Your task to perform on an android device: change the upload size in google photos Image 0: 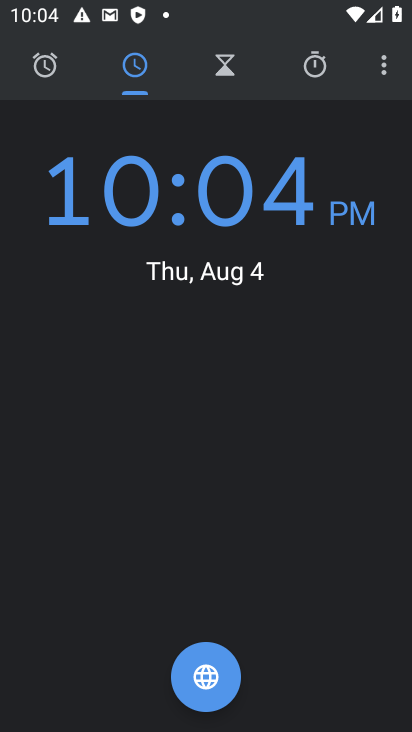
Step 0: press home button
Your task to perform on an android device: change the upload size in google photos Image 1: 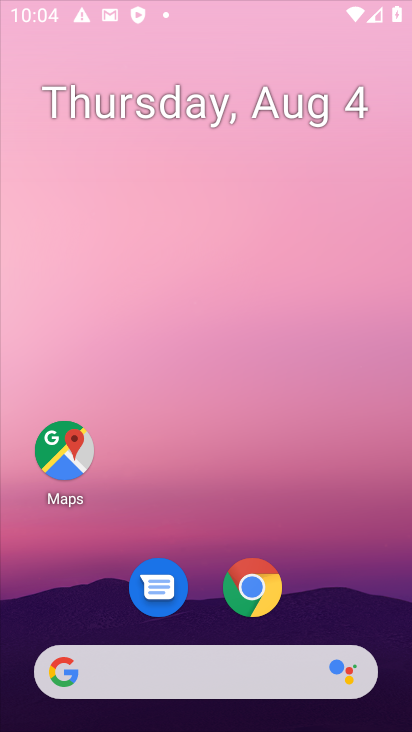
Step 1: drag from (204, 679) to (294, 122)
Your task to perform on an android device: change the upload size in google photos Image 2: 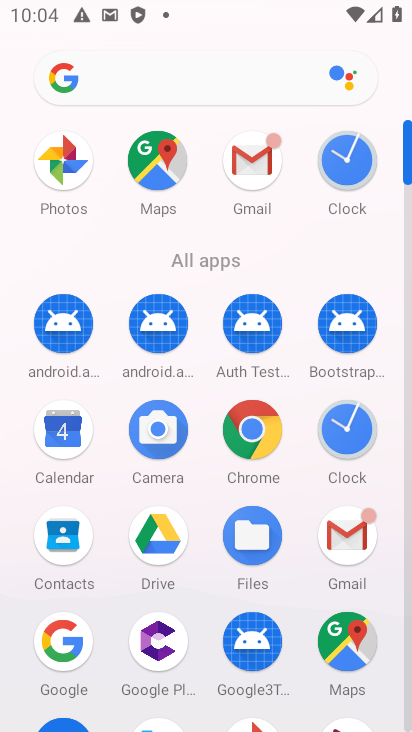
Step 2: drag from (85, 615) to (87, 145)
Your task to perform on an android device: change the upload size in google photos Image 3: 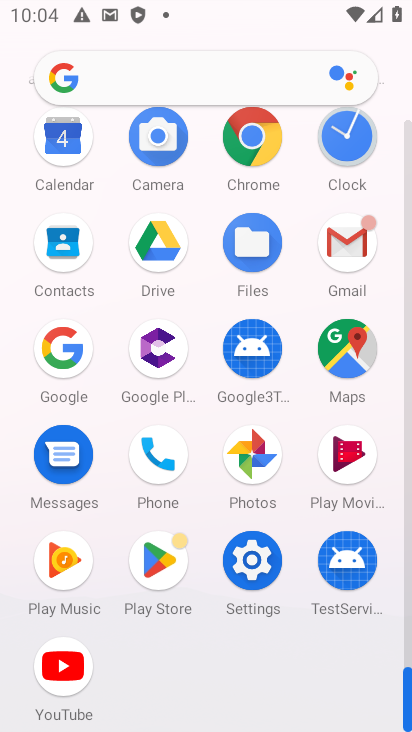
Step 3: click (263, 458)
Your task to perform on an android device: change the upload size in google photos Image 4: 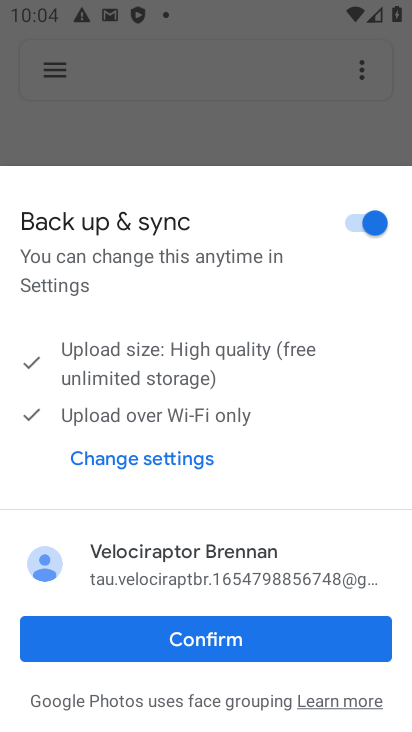
Step 4: click (54, 73)
Your task to perform on an android device: change the upload size in google photos Image 5: 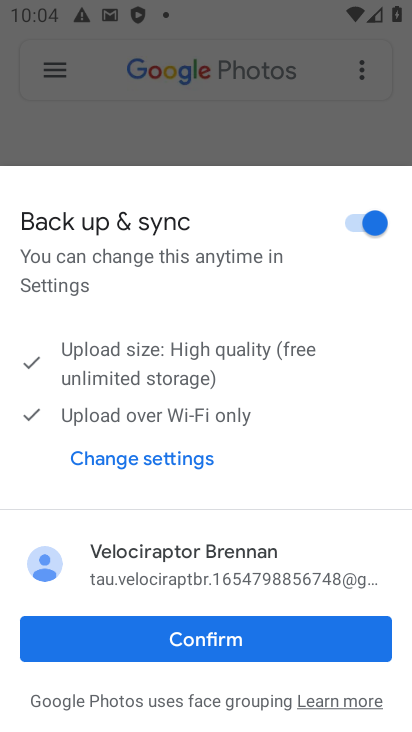
Step 5: click (172, 627)
Your task to perform on an android device: change the upload size in google photos Image 6: 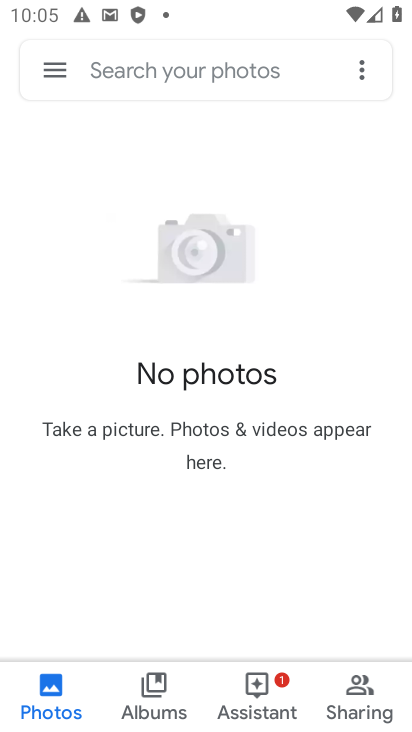
Step 6: click (53, 63)
Your task to perform on an android device: change the upload size in google photos Image 7: 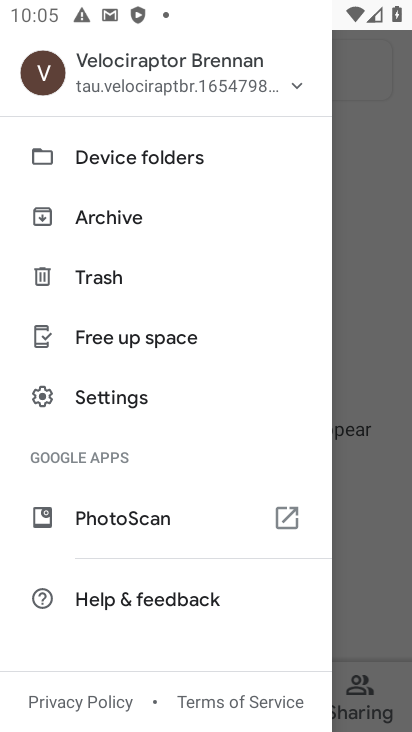
Step 7: click (93, 400)
Your task to perform on an android device: change the upload size in google photos Image 8: 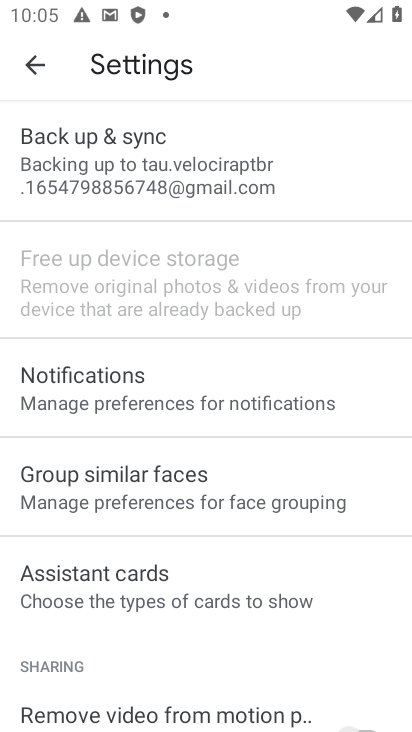
Step 8: click (120, 172)
Your task to perform on an android device: change the upload size in google photos Image 9: 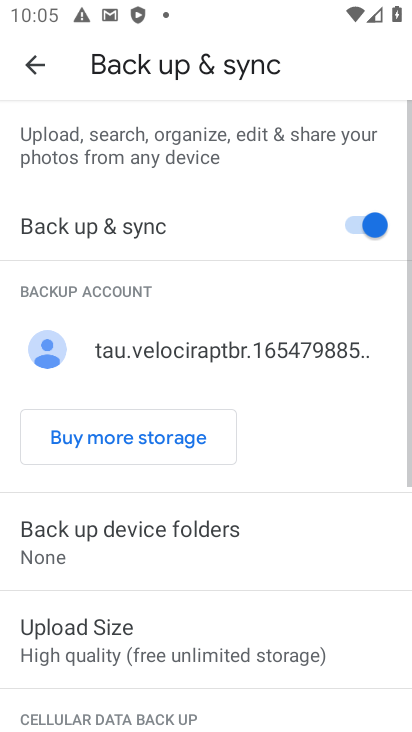
Step 9: click (165, 635)
Your task to perform on an android device: change the upload size in google photos Image 10: 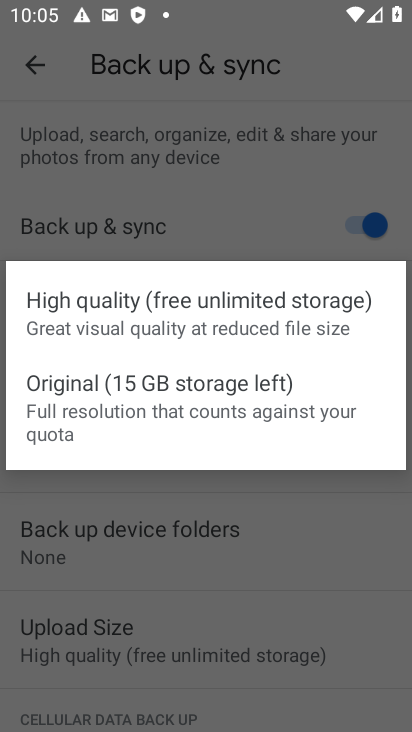
Step 10: click (92, 390)
Your task to perform on an android device: change the upload size in google photos Image 11: 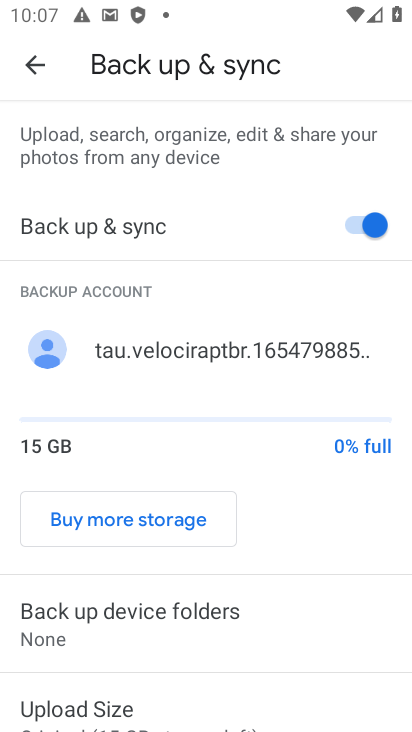
Step 11: task complete